Your task to perform on an android device: toggle pop-ups in chrome Image 0: 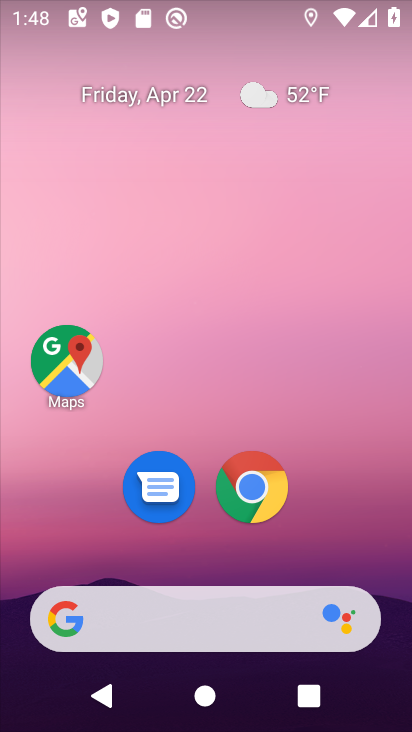
Step 0: click (261, 497)
Your task to perform on an android device: toggle pop-ups in chrome Image 1: 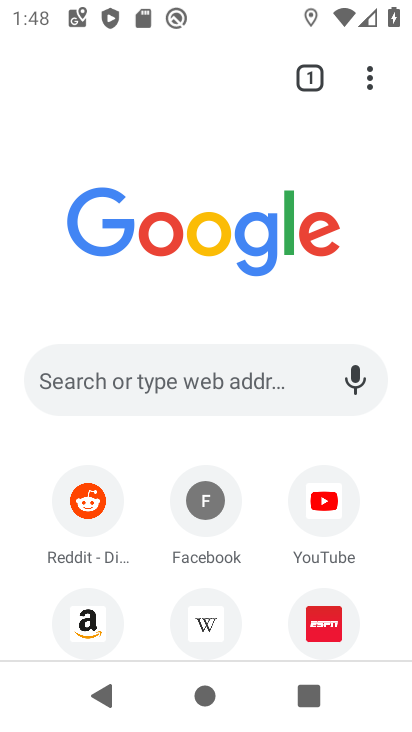
Step 1: click (368, 78)
Your task to perform on an android device: toggle pop-ups in chrome Image 2: 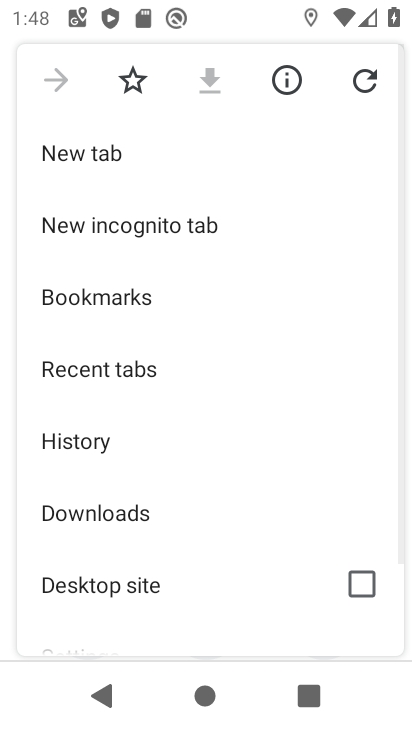
Step 2: drag from (139, 567) to (146, 366)
Your task to perform on an android device: toggle pop-ups in chrome Image 3: 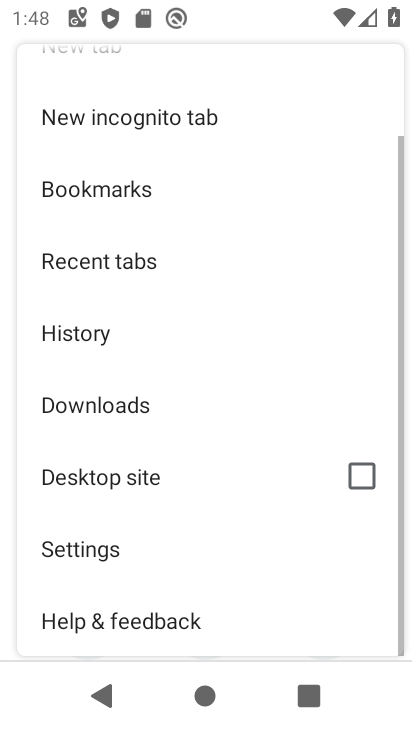
Step 3: click (104, 541)
Your task to perform on an android device: toggle pop-ups in chrome Image 4: 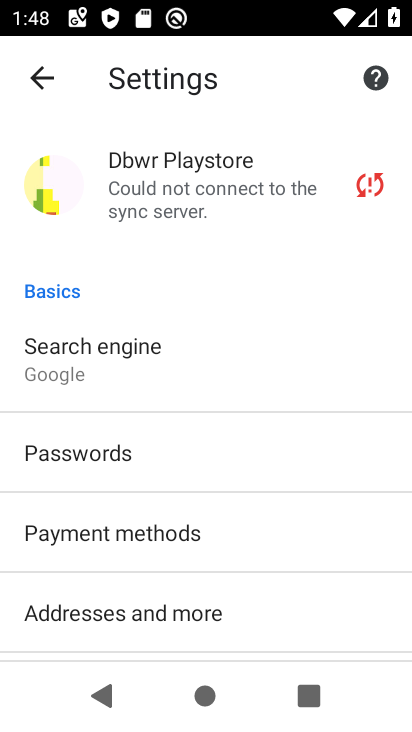
Step 4: drag from (109, 567) to (146, 261)
Your task to perform on an android device: toggle pop-ups in chrome Image 5: 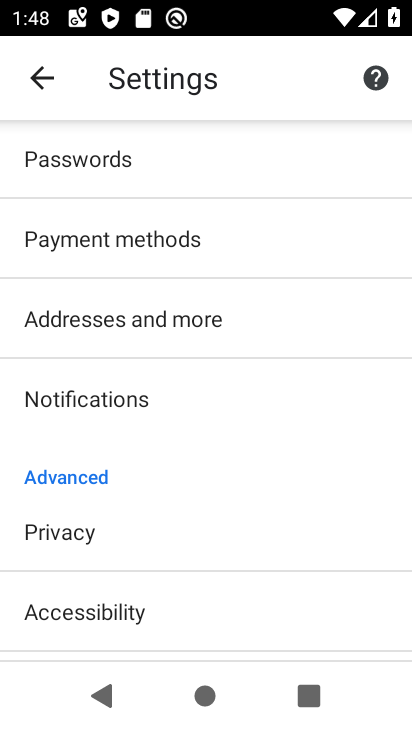
Step 5: drag from (135, 513) to (164, 331)
Your task to perform on an android device: toggle pop-ups in chrome Image 6: 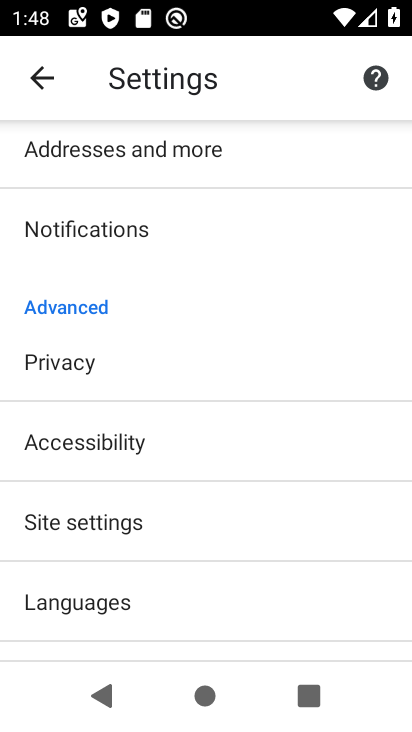
Step 6: click (108, 536)
Your task to perform on an android device: toggle pop-ups in chrome Image 7: 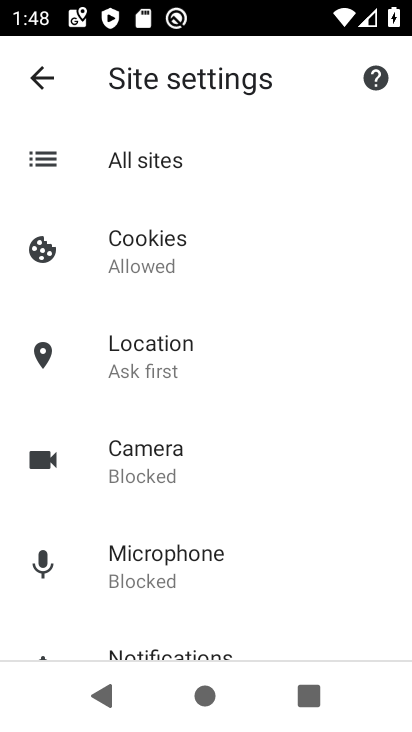
Step 7: drag from (159, 598) to (211, 210)
Your task to perform on an android device: toggle pop-ups in chrome Image 8: 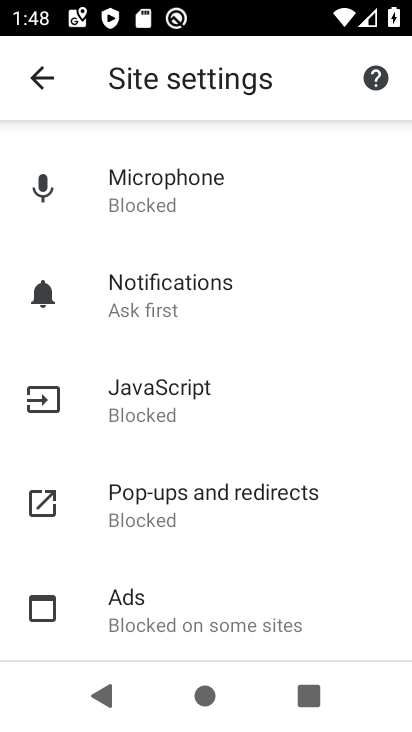
Step 8: click (156, 530)
Your task to perform on an android device: toggle pop-ups in chrome Image 9: 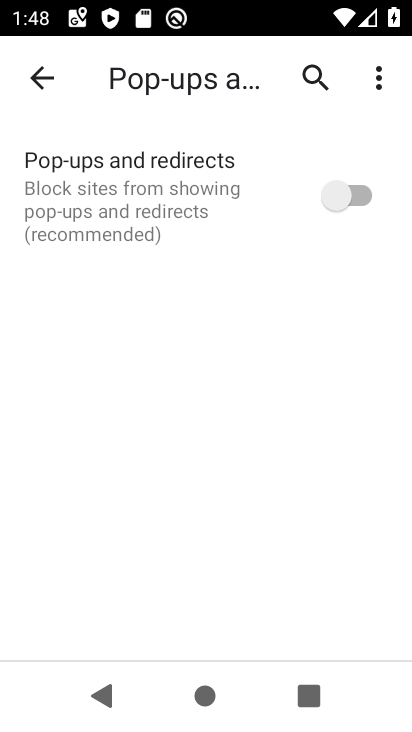
Step 9: click (334, 192)
Your task to perform on an android device: toggle pop-ups in chrome Image 10: 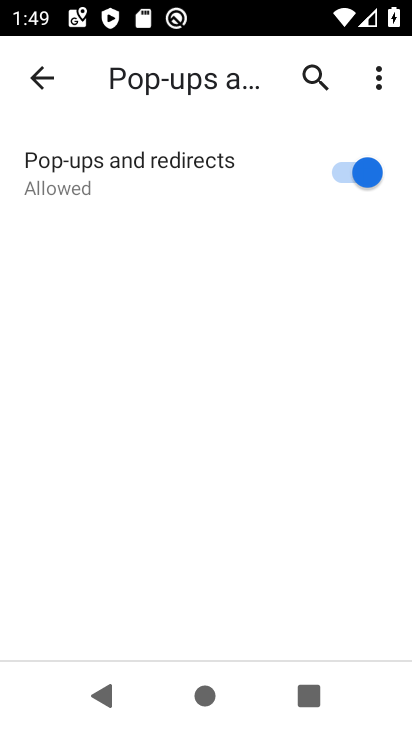
Step 10: task complete